Your task to perform on an android device: change keyboard looks Image 0: 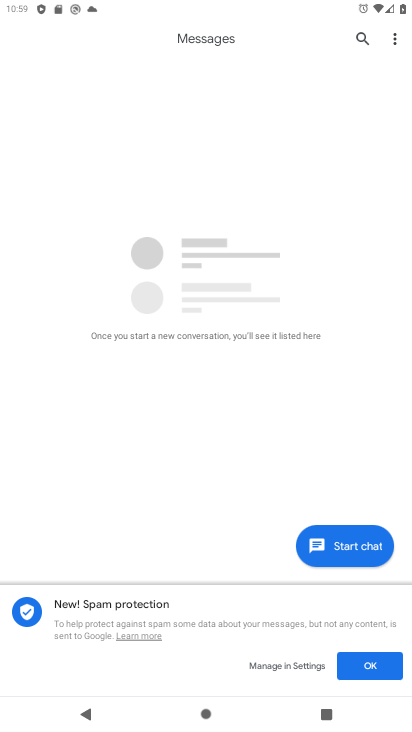
Step 0: press home button
Your task to perform on an android device: change keyboard looks Image 1: 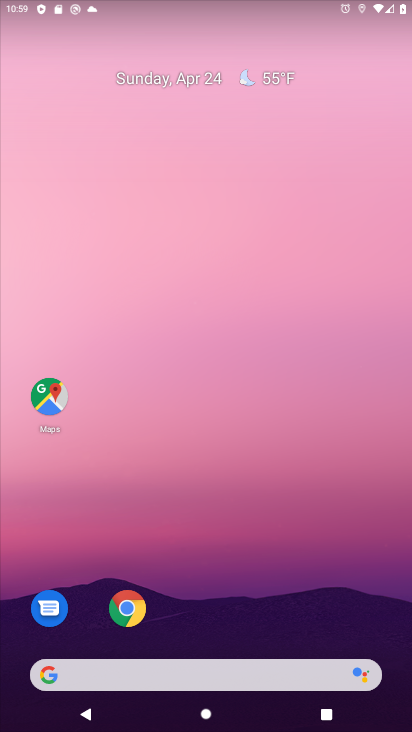
Step 1: drag from (363, 616) to (249, 1)
Your task to perform on an android device: change keyboard looks Image 2: 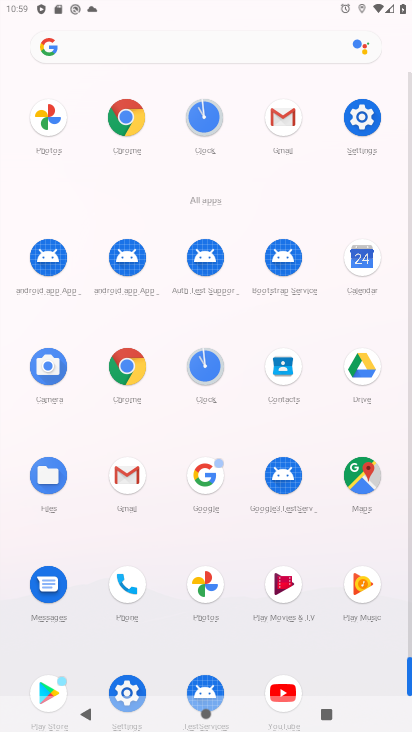
Step 2: drag from (409, 647) to (411, 601)
Your task to perform on an android device: change keyboard looks Image 3: 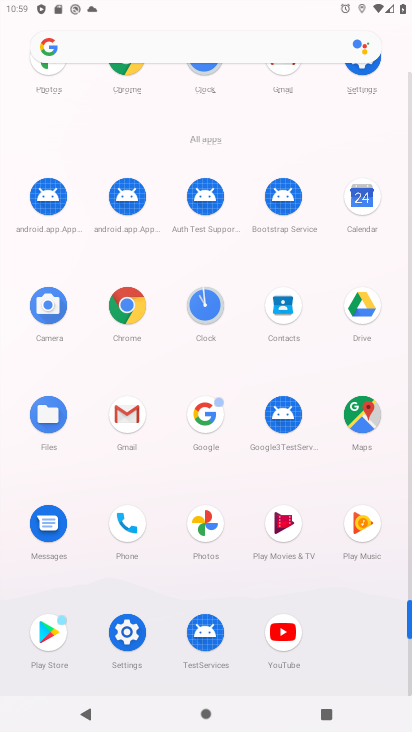
Step 3: click (126, 631)
Your task to perform on an android device: change keyboard looks Image 4: 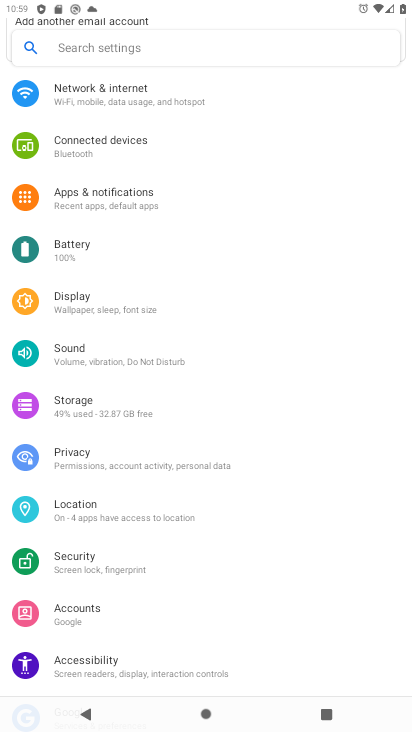
Step 4: drag from (244, 609) to (259, 279)
Your task to perform on an android device: change keyboard looks Image 5: 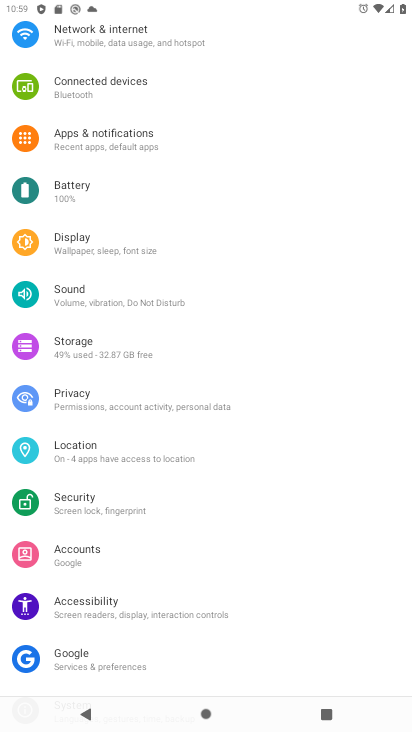
Step 5: drag from (202, 448) to (204, 209)
Your task to perform on an android device: change keyboard looks Image 6: 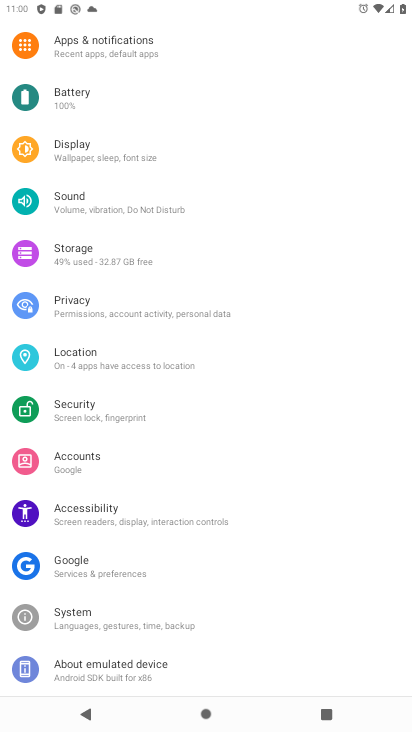
Step 6: click (83, 619)
Your task to perform on an android device: change keyboard looks Image 7: 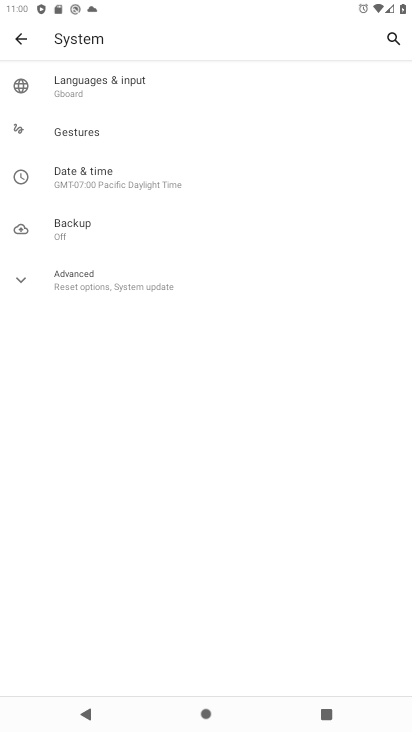
Step 7: click (78, 75)
Your task to perform on an android device: change keyboard looks Image 8: 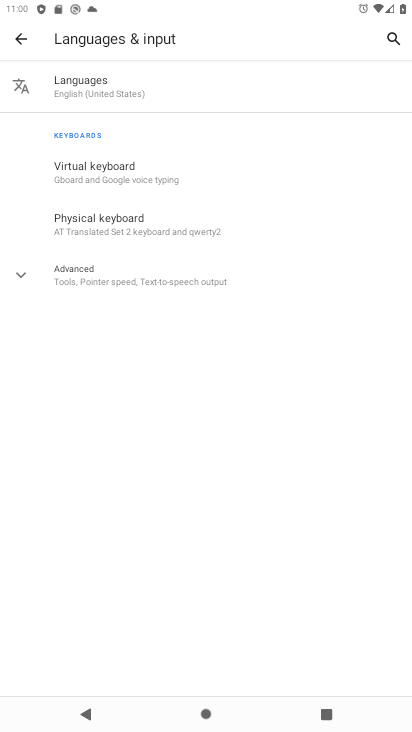
Step 8: click (105, 215)
Your task to perform on an android device: change keyboard looks Image 9: 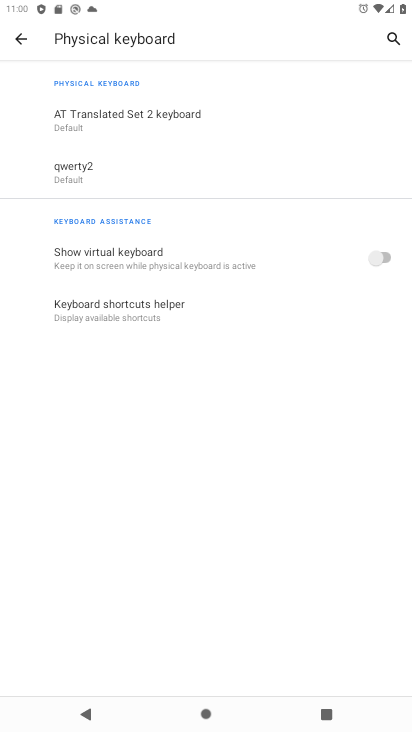
Step 9: click (73, 171)
Your task to perform on an android device: change keyboard looks Image 10: 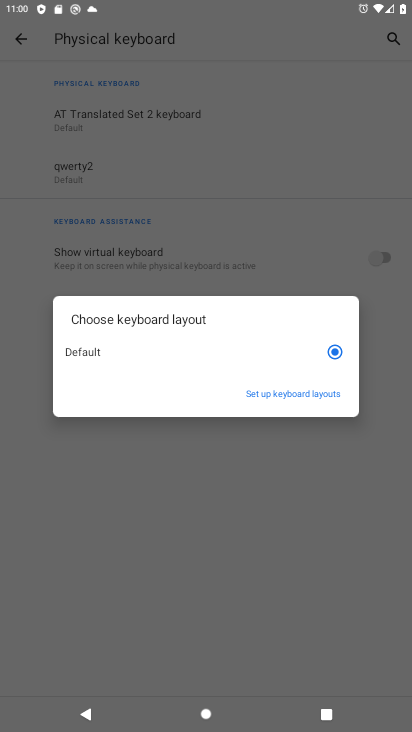
Step 10: click (287, 389)
Your task to perform on an android device: change keyboard looks Image 11: 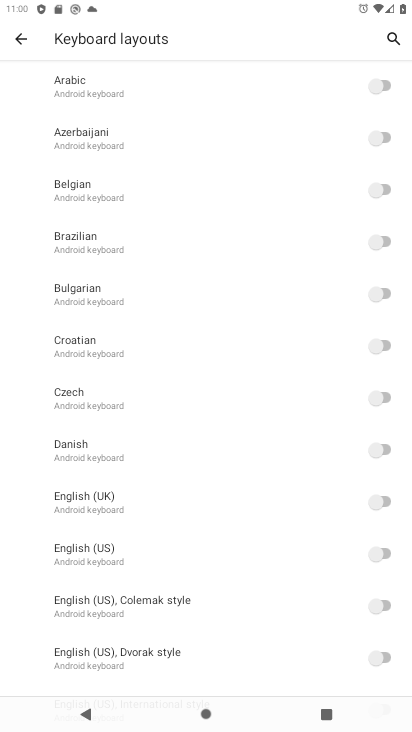
Step 11: click (383, 503)
Your task to perform on an android device: change keyboard looks Image 12: 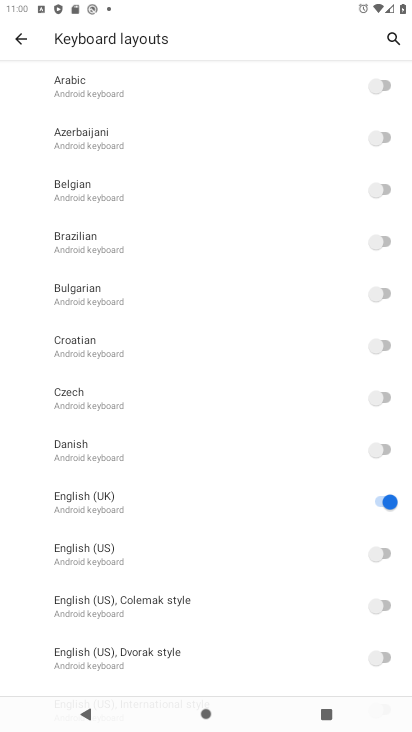
Step 12: task complete